Your task to perform on an android device: What's the weather today? Image 0: 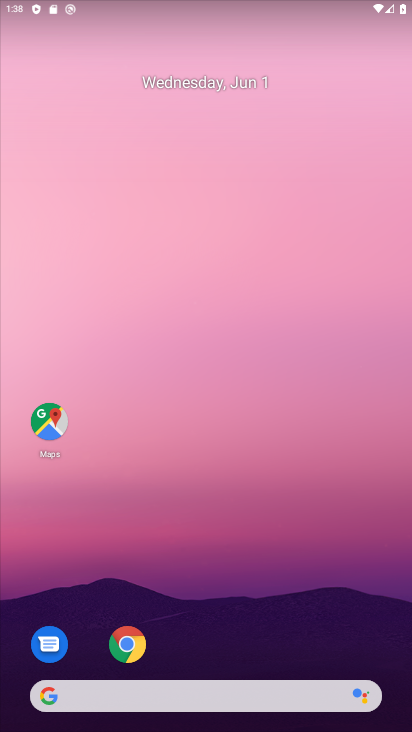
Step 0: drag from (188, 645) to (267, 129)
Your task to perform on an android device: What's the weather today? Image 1: 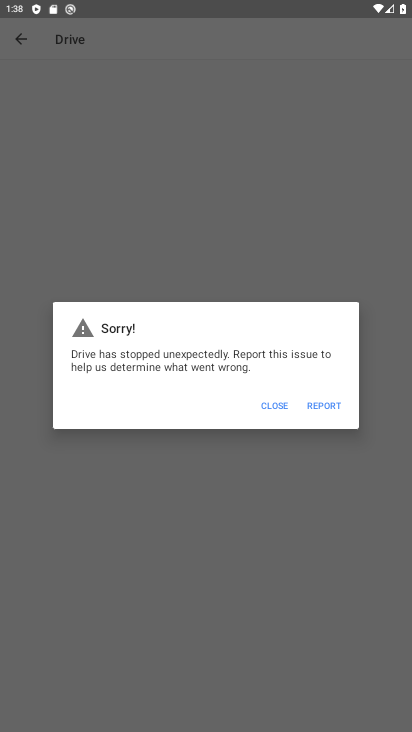
Step 1: press home button
Your task to perform on an android device: What's the weather today? Image 2: 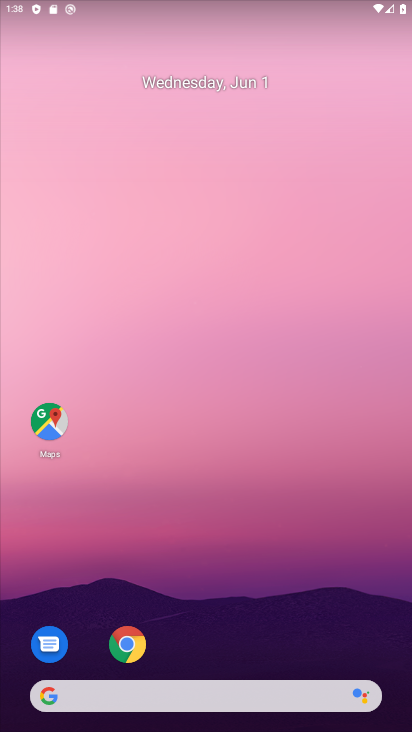
Step 2: click (128, 645)
Your task to perform on an android device: What's the weather today? Image 3: 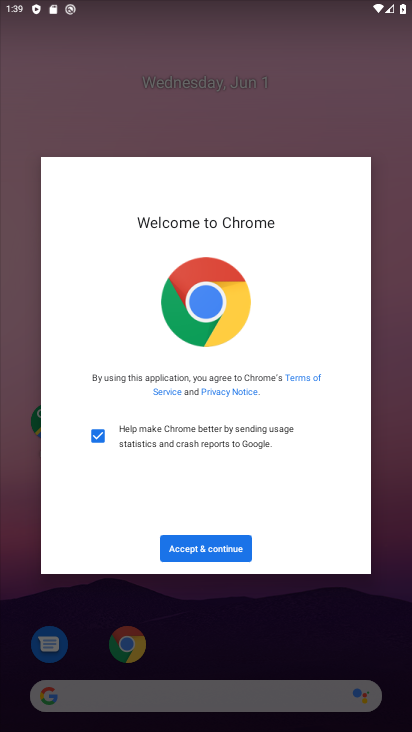
Step 3: click (244, 545)
Your task to perform on an android device: What's the weather today? Image 4: 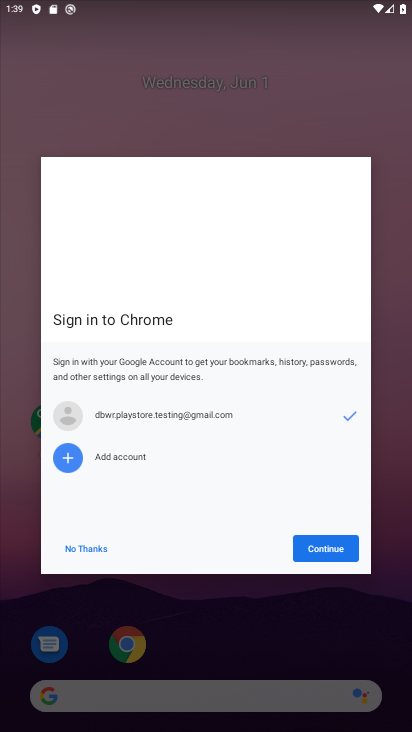
Step 4: click (340, 545)
Your task to perform on an android device: What's the weather today? Image 5: 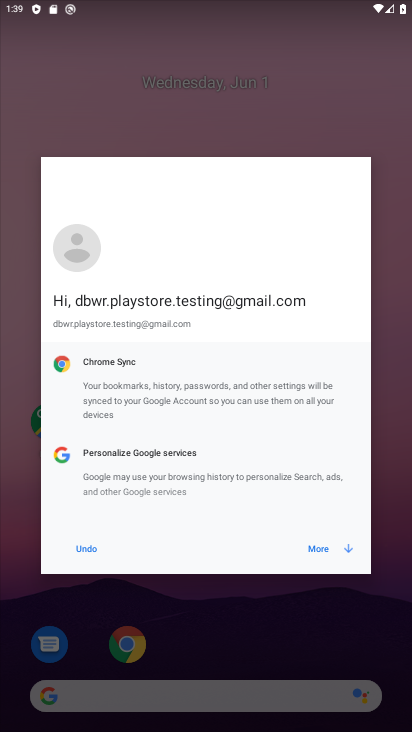
Step 5: click (331, 548)
Your task to perform on an android device: What's the weather today? Image 6: 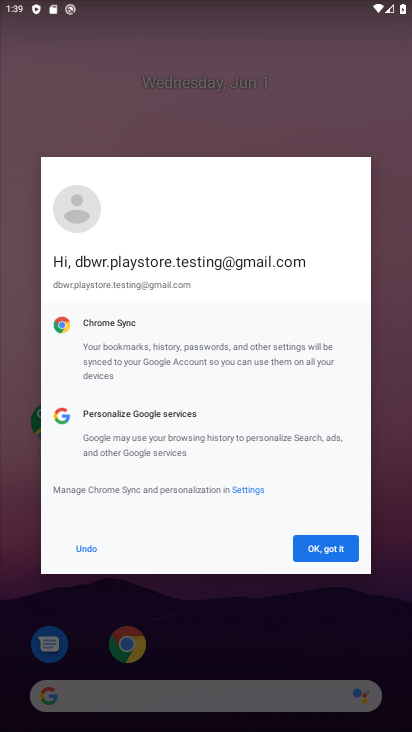
Step 6: click (330, 554)
Your task to perform on an android device: What's the weather today? Image 7: 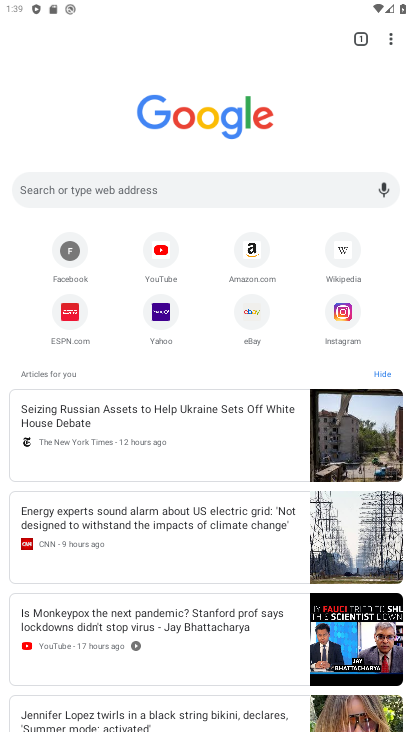
Step 7: click (103, 201)
Your task to perform on an android device: What's the weather today? Image 8: 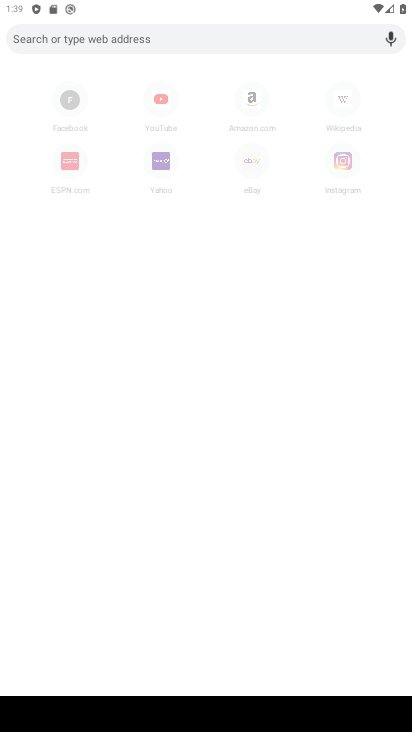
Step 8: type "What's the weather today?"
Your task to perform on an android device: What's the weather today? Image 9: 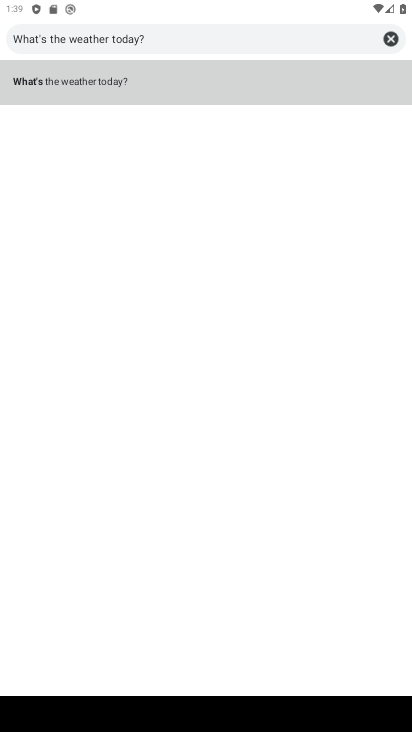
Step 9: click (137, 70)
Your task to perform on an android device: What's the weather today? Image 10: 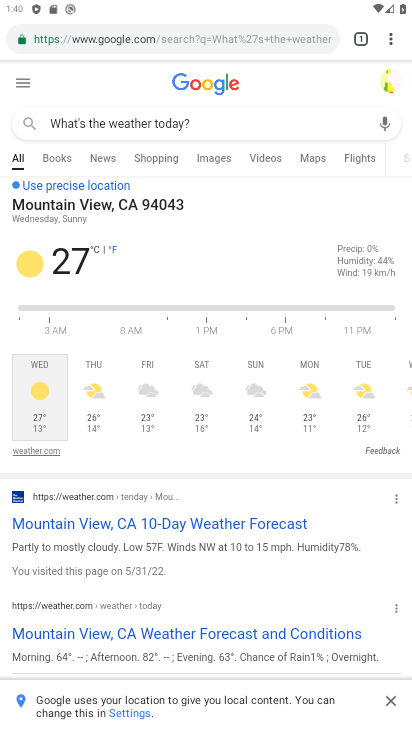
Step 10: task complete